Your task to perform on an android device: set default search engine in the chrome app Image 0: 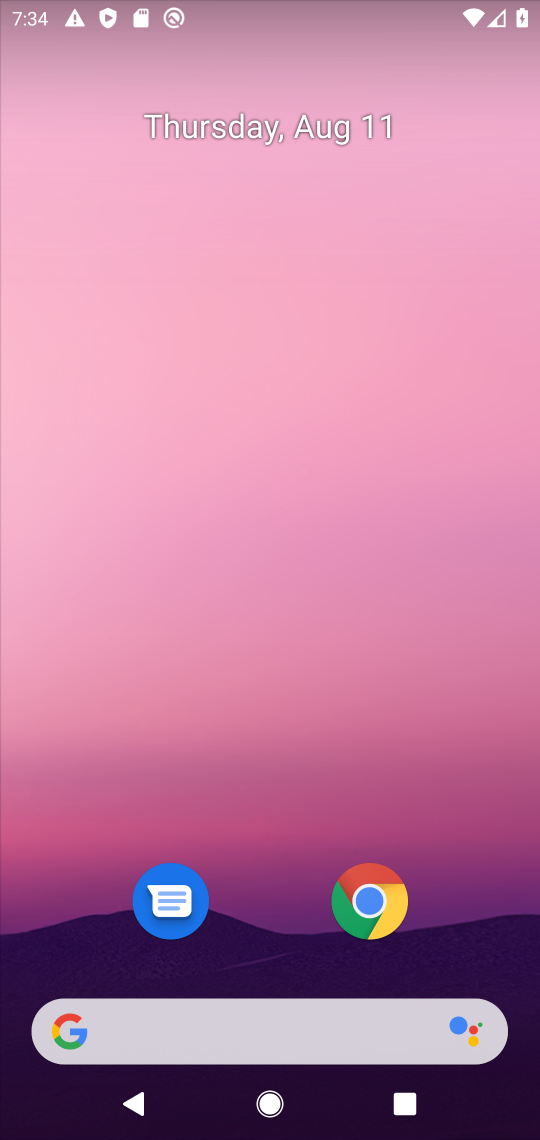
Step 0: drag from (253, 903) to (526, 75)
Your task to perform on an android device: set default search engine in the chrome app Image 1: 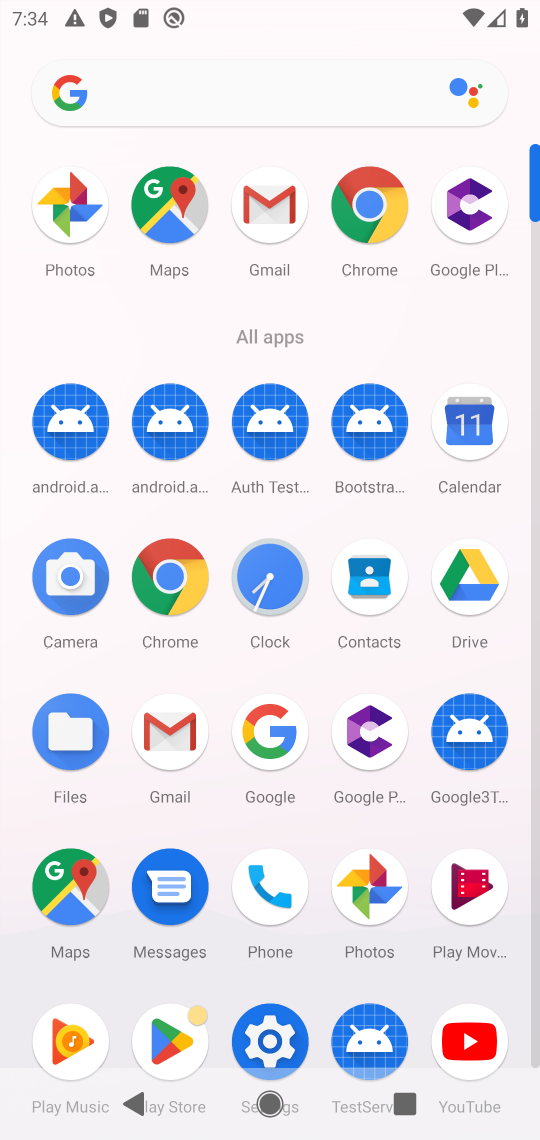
Step 1: click (161, 568)
Your task to perform on an android device: set default search engine in the chrome app Image 2: 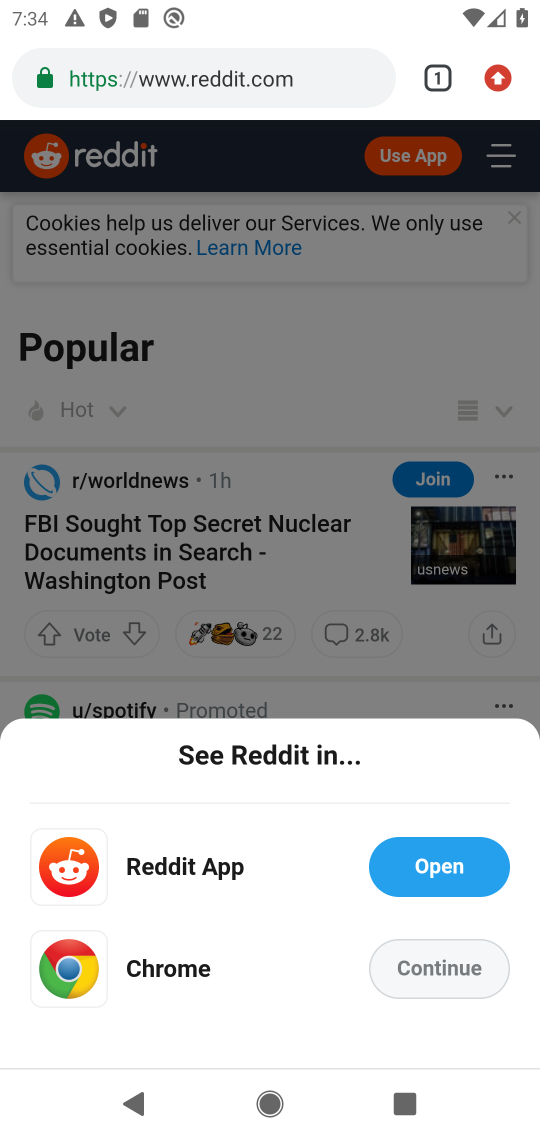
Step 2: drag from (533, 57) to (270, 934)
Your task to perform on an android device: set default search engine in the chrome app Image 3: 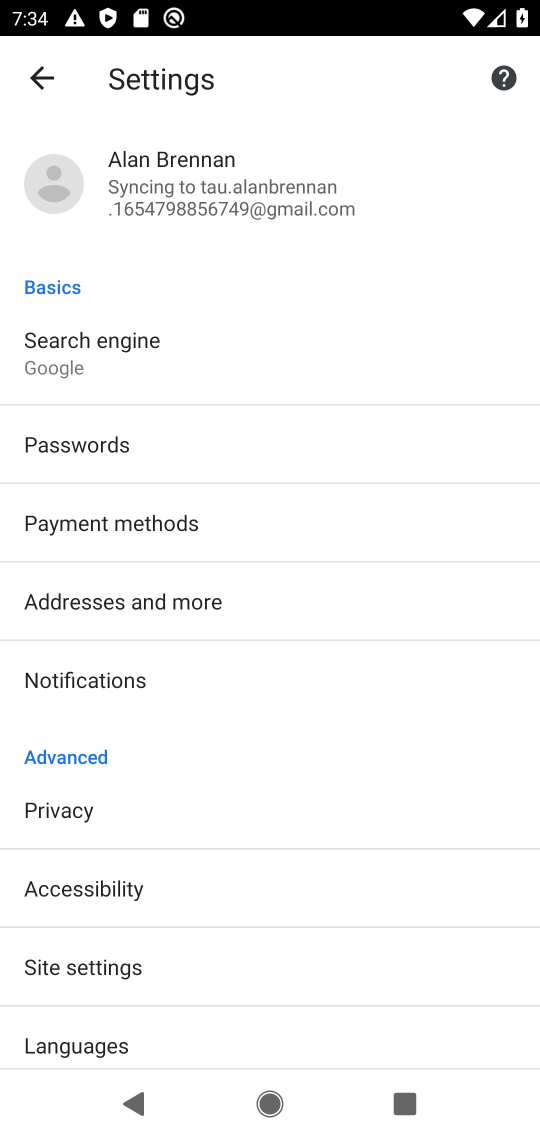
Step 3: click (80, 329)
Your task to perform on an android device: set default search engine in the chrome app Image 4: 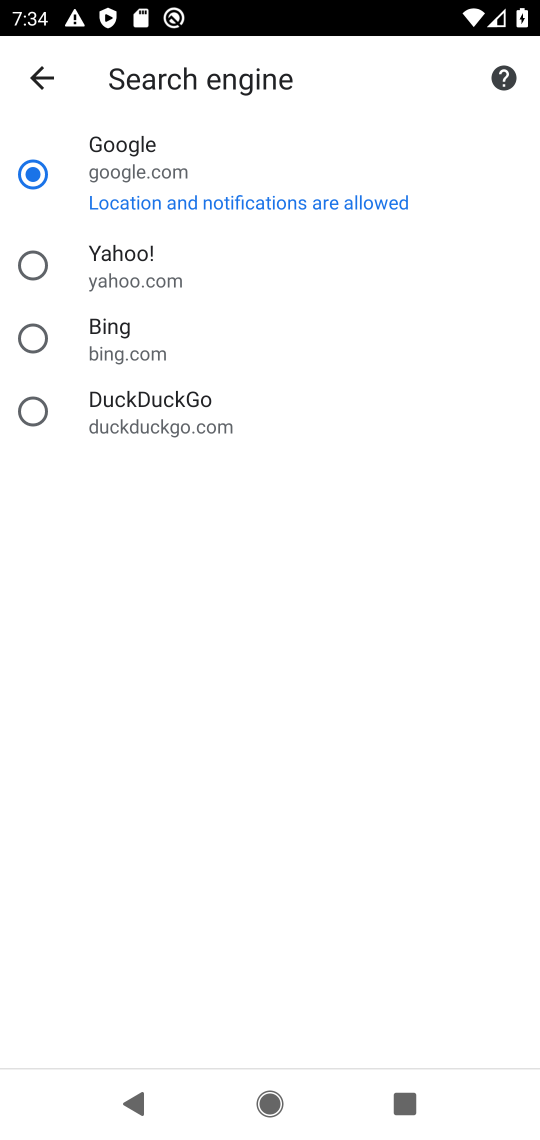
Step 4: task complete